Your task to perform on an android device: turn pop-ups on in chrome Image 0: 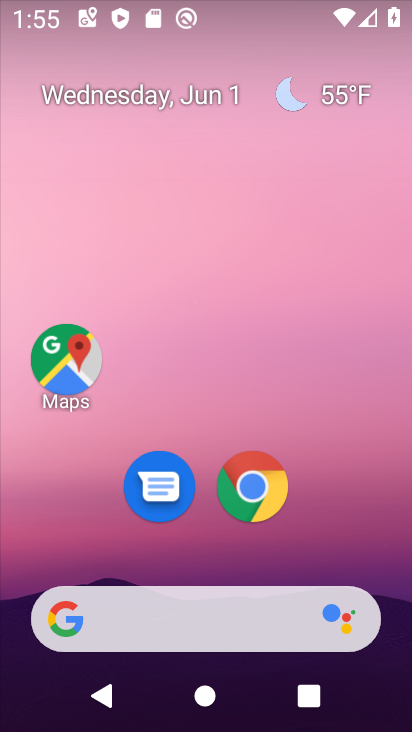
Step 0: click (253, 475)
Your task to perform on an android device: turn pop-ups on in chrome Image 1: 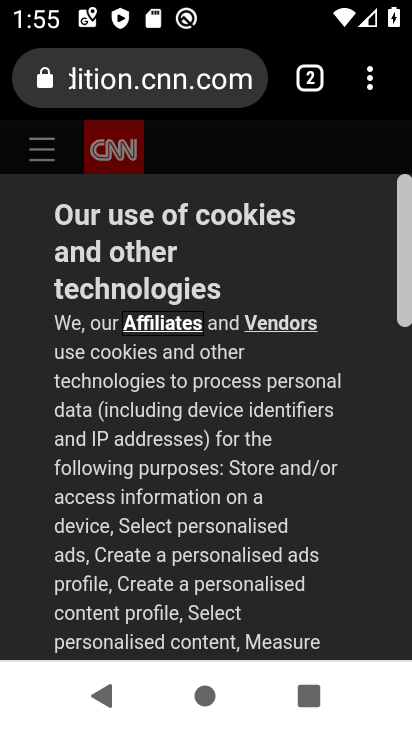
Step 1: drag from (370, 70) to (121, 550)
Your task to perform on an android device: turn pop-ups on in chrome Image 2: 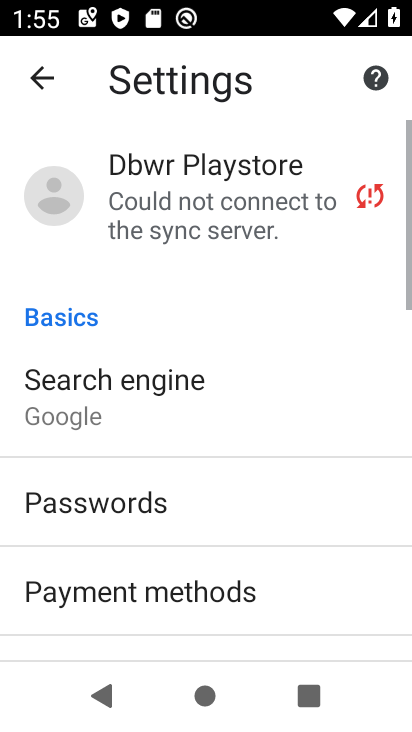
Step 2: drag from (137, 509) to (226, 49)
Your task to perform on an android device: turn pop-ups on in chrome Image 3: 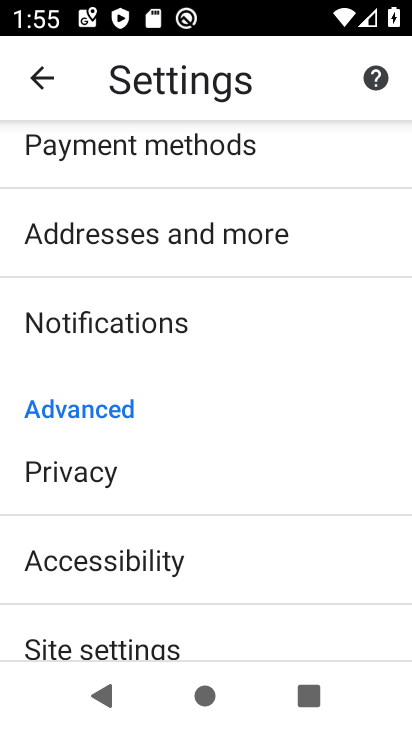
Step 3: drag from (132, 575) to (198, 190)
Your task to perform on an android device: turn pop-ups on in chrome Image 4: 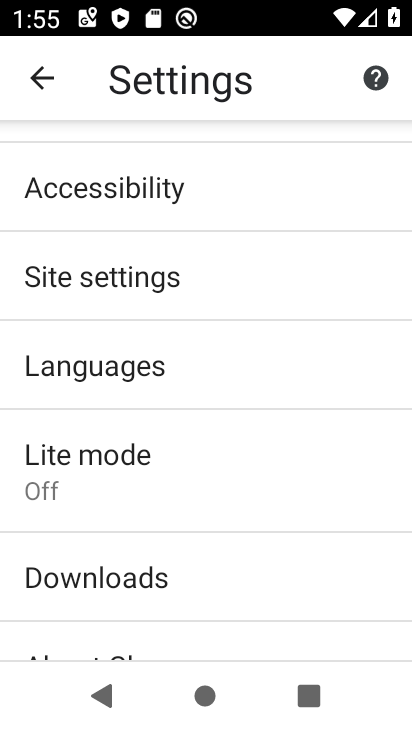
Step 4: click (73, 279)
Your task to perform on an android device: turn pop-ups on in chrome Image 5: 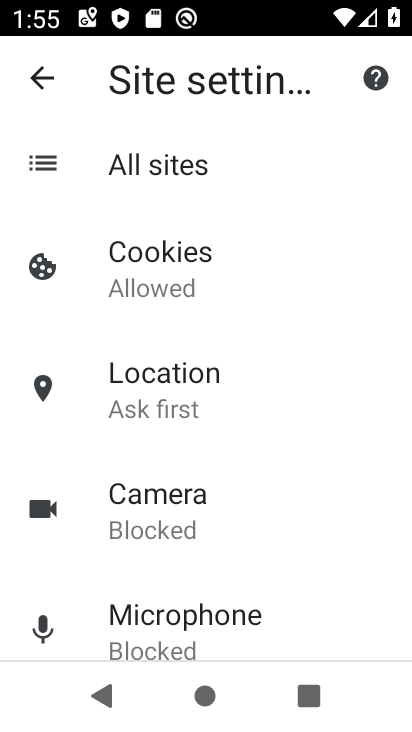
Step 5: drag from (171, 602) to (241, 218)
Your task to perform on an android device: turn pop-ups on in chrome Image 6: 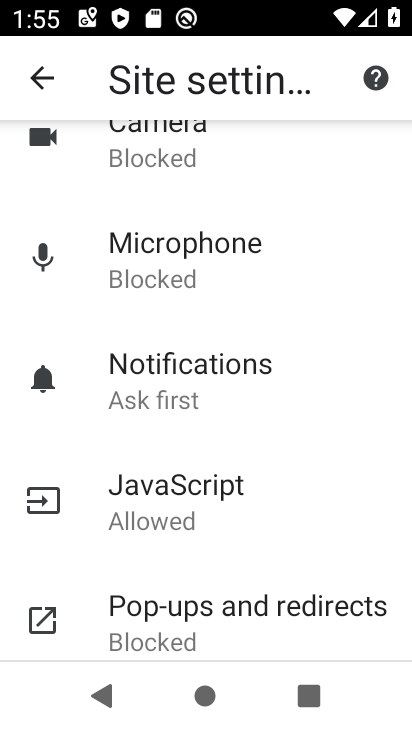
Step 6: click (170, 622)
Your task to perform on an android device: turn pop-ups on in chrome Image 7: 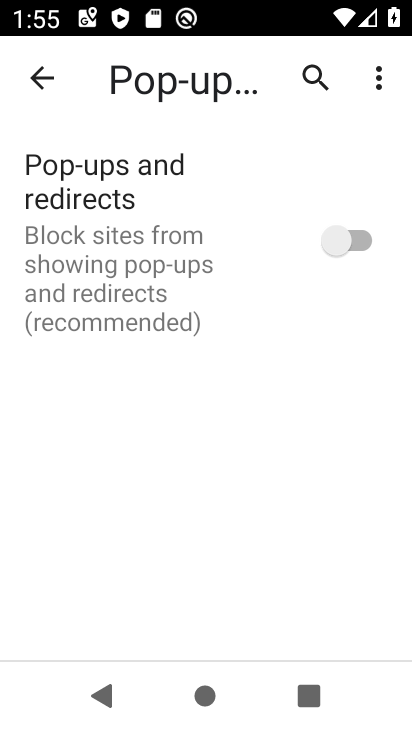
Step 7: click (351, 234)
Your task to perform on an android device: turn pop-ups on in chrome Image 8: 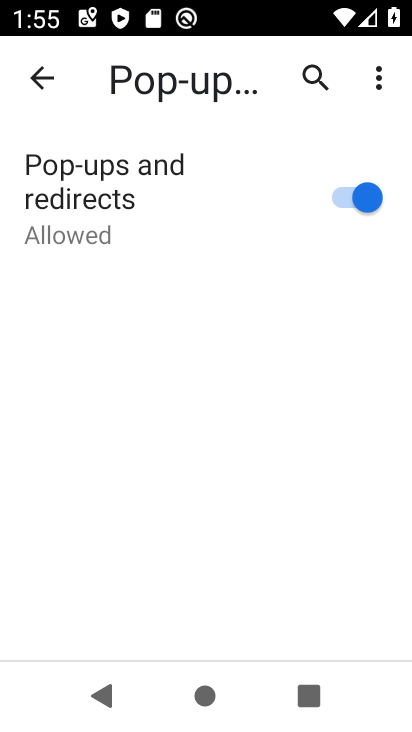
Step 8: task complete